Your task to perform on an android device: Search for Italian restaurants on Maps Image 0: 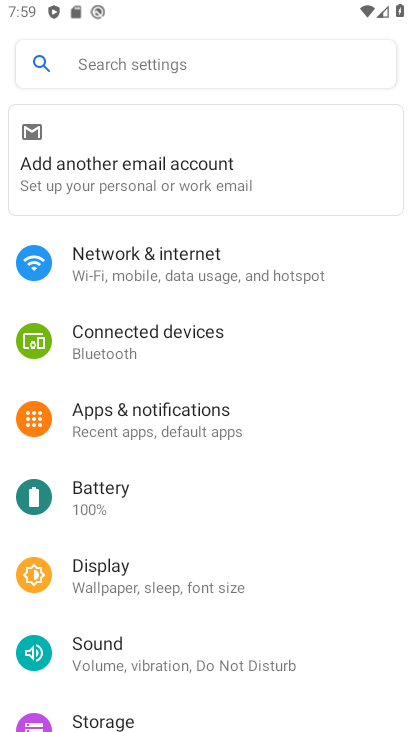
Step 0: press home button
Your task to perform on an android device: Search for Italian restaurants on Maps Image 1: 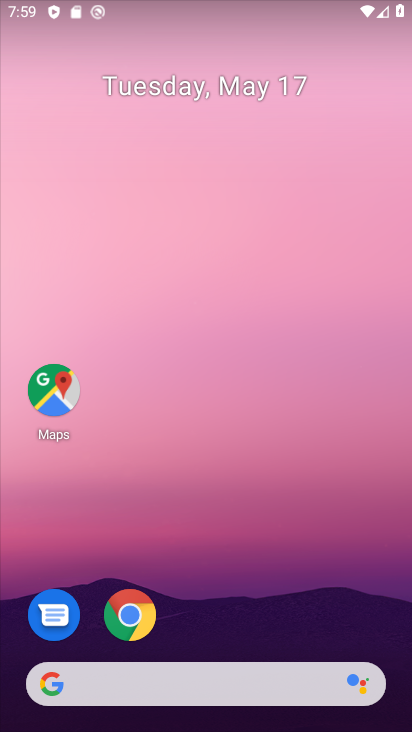
Step 1: click (49, 378)
Your task to perform on an android device: Search for Italian restaurants on Maps Image 2: 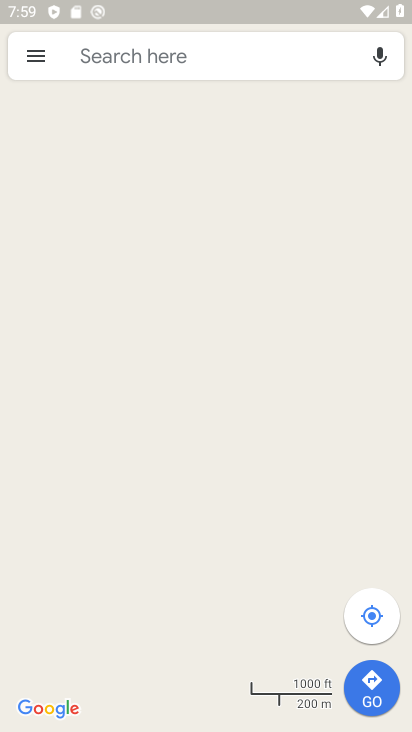
Step 2: click (199, 49)
Your task to perform on an android device: Search for Italian restaurants on Maps Image 3: 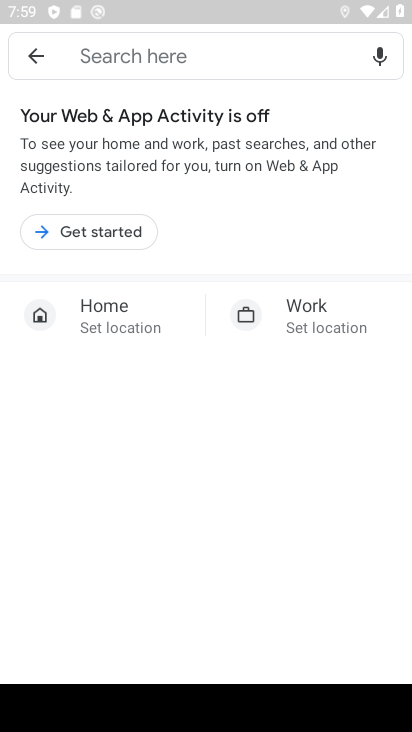
Step 3: click (197, 55)
Your task to perform on an android device: Search for Italian restaurants on Maps Image 4: 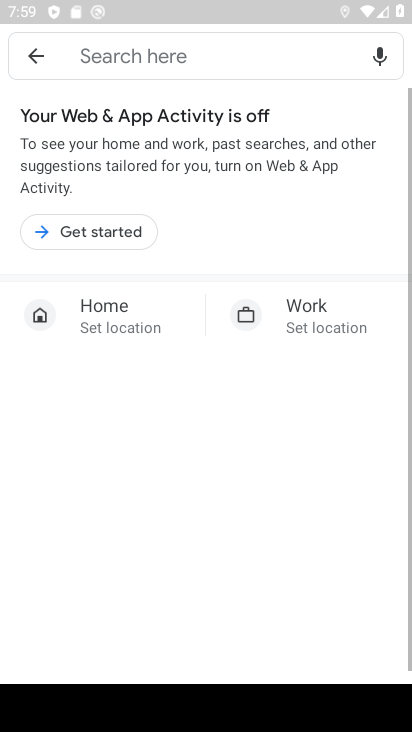
Step 4: type " Italian restaurants "
Your task to perform on an android device: Search for Italian restaurants on Maps Image 5: 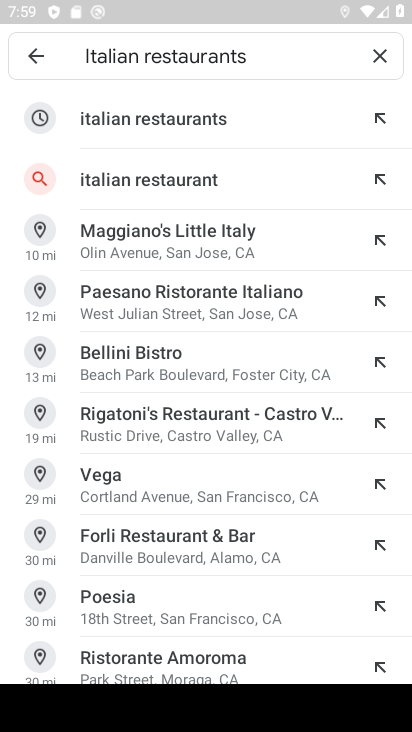
Step 5: click (195, 101)
Your task to perform on an android device: Search for Italian restaurants on Maps Image 6: 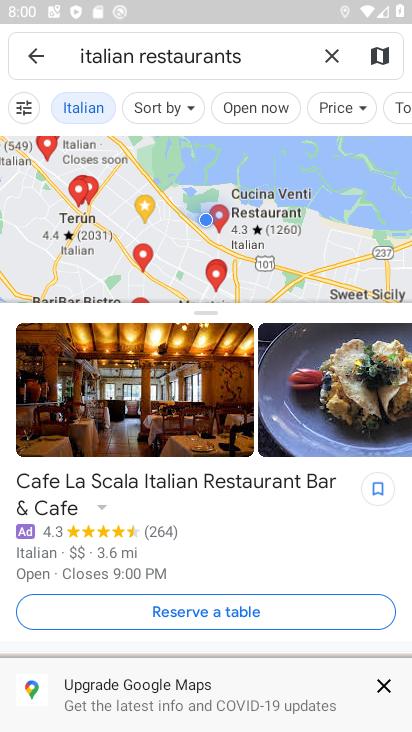
Step 6: task complete